Your task to perform on an android device: turn on airplane mode Image 0: 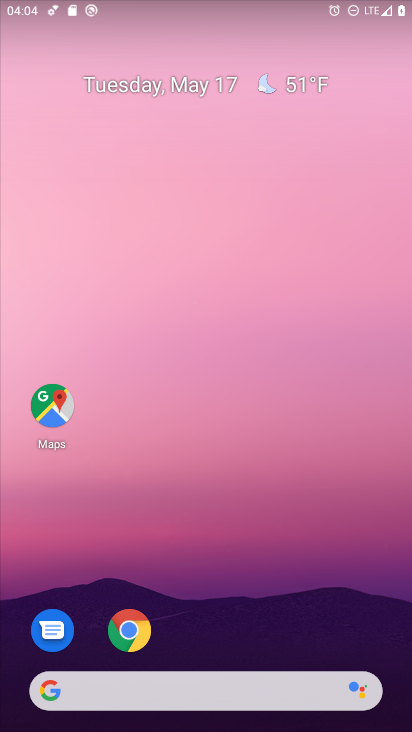
Step 0: drag from (345, 42) to (321, 585)
Your task to perform on an android device: turn on airplane mode Image 1: 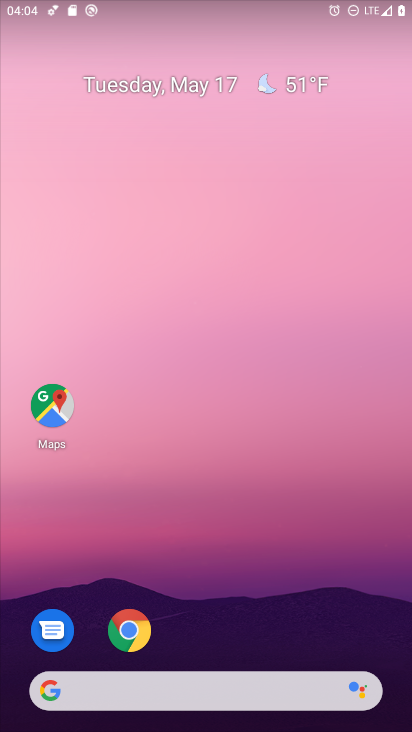
Step 1: drag from (326, 8) to (232, 661)
Your task to perform on an android device: turn on airplane mode Image 2: 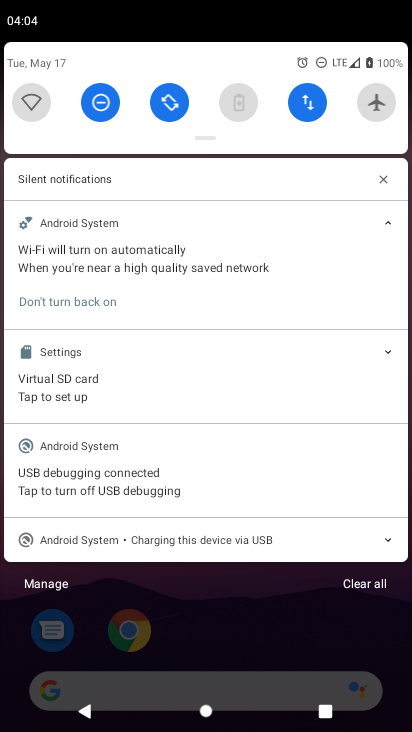
Step 2: click (377, 100)
Your task to perform on an android device: turn on airplane mode Image 3: 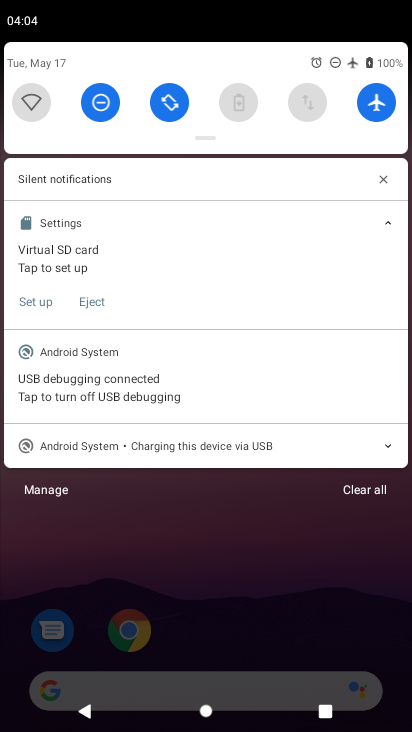
Step 3: task complete